Your task to perform on an android device: move an email to a new category in the gmail app Image 0: 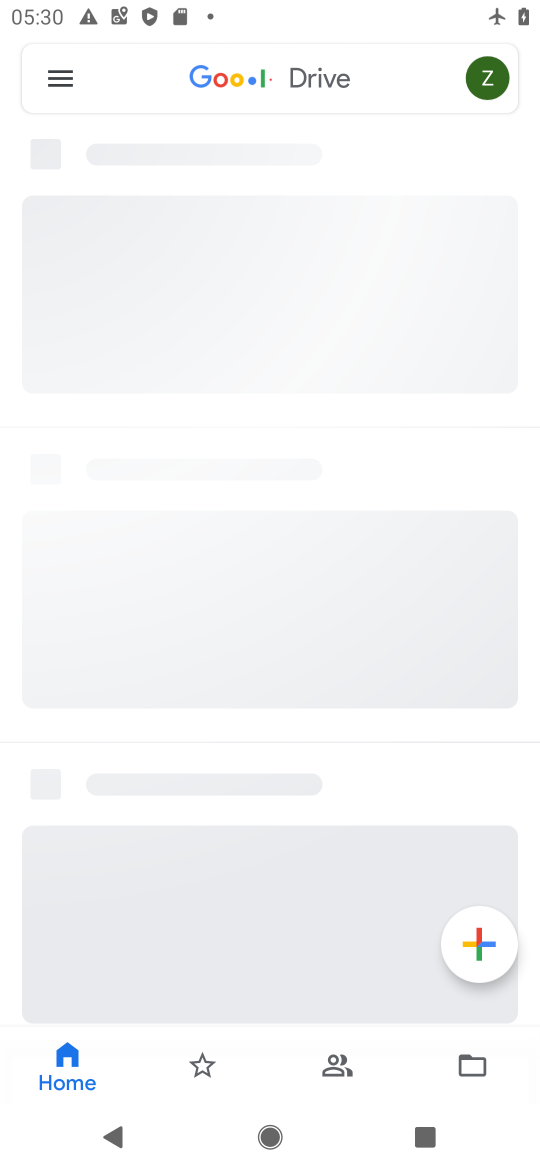
Step 0: press back button
Your task to perform on an android device: move an email to a new category in the gmail app Image 1: 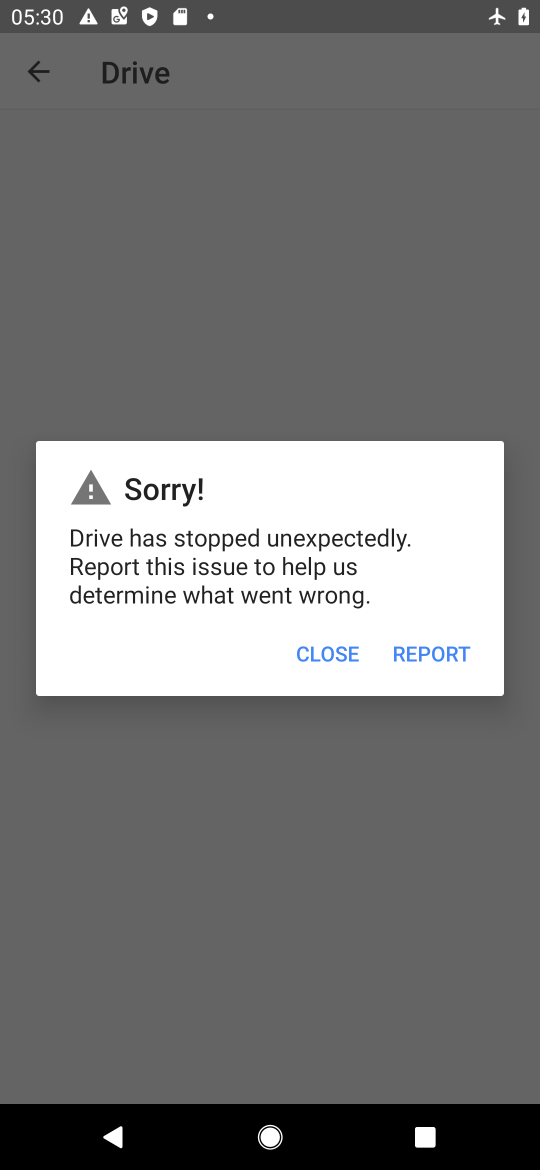
Step 1: press home button
Your task to perform on an android device: move an email to a new category in the gmail app Image 2: 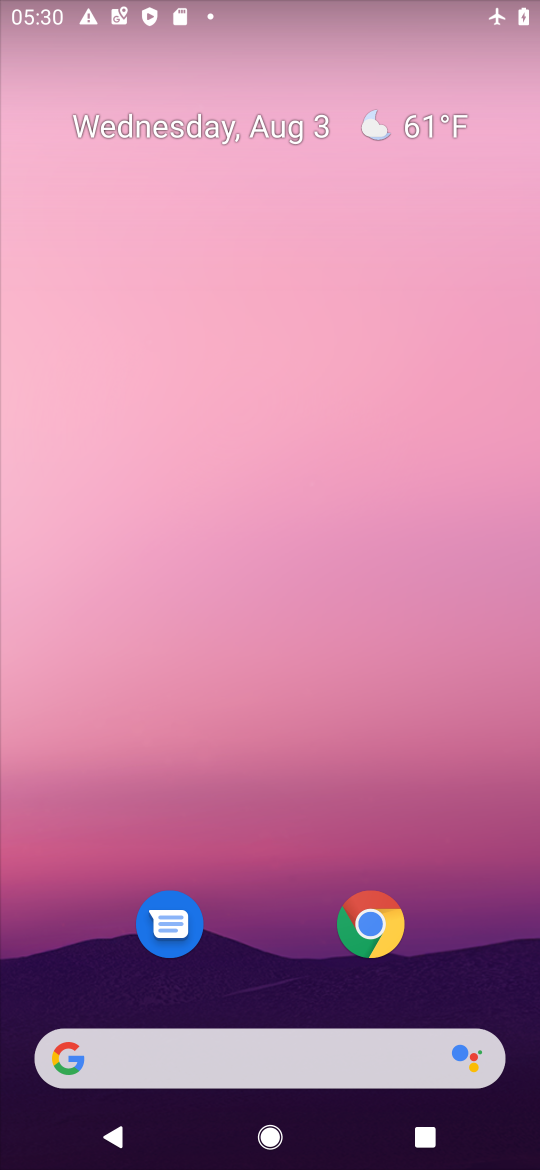
Step 2: drag from (268, 924) to (273, 359)
Your task to perform on an android device: move an email to a new category in the gmail app Image 3: 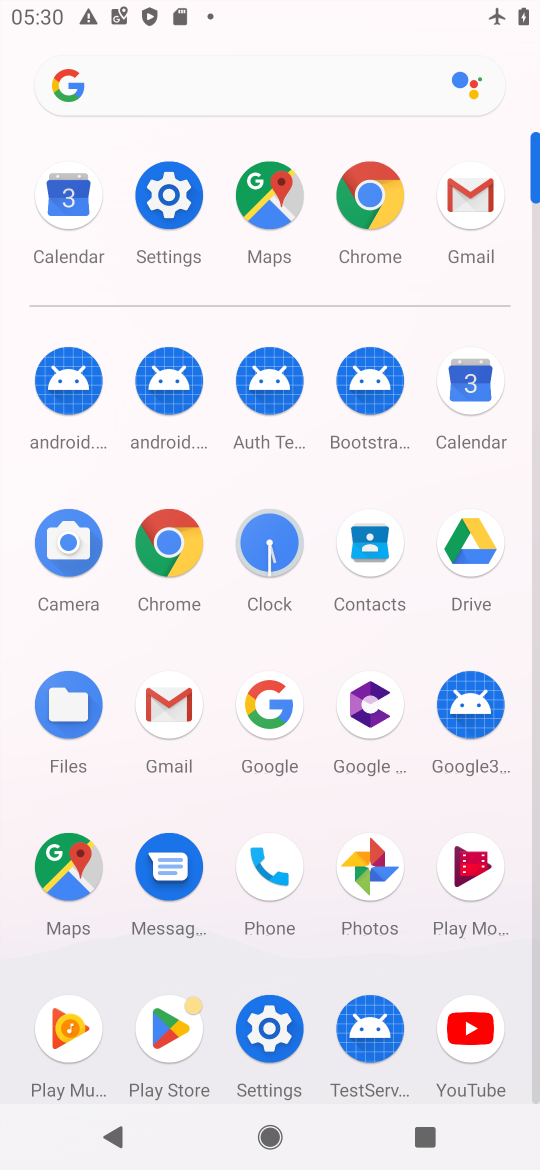
Step 3: click (482, 222)
Your task to perform on an android device: move an email to a new category in the gmail app Image 4: 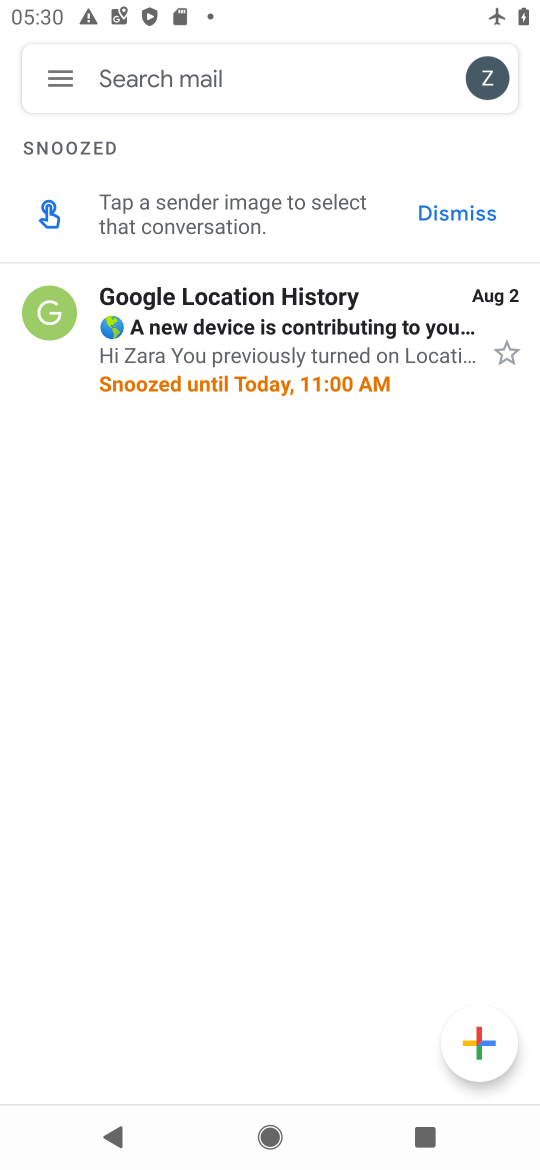
Step 4: click (279, 344)
Your task to perform on an android device: move an email to a new category in the gmail app Image 5: 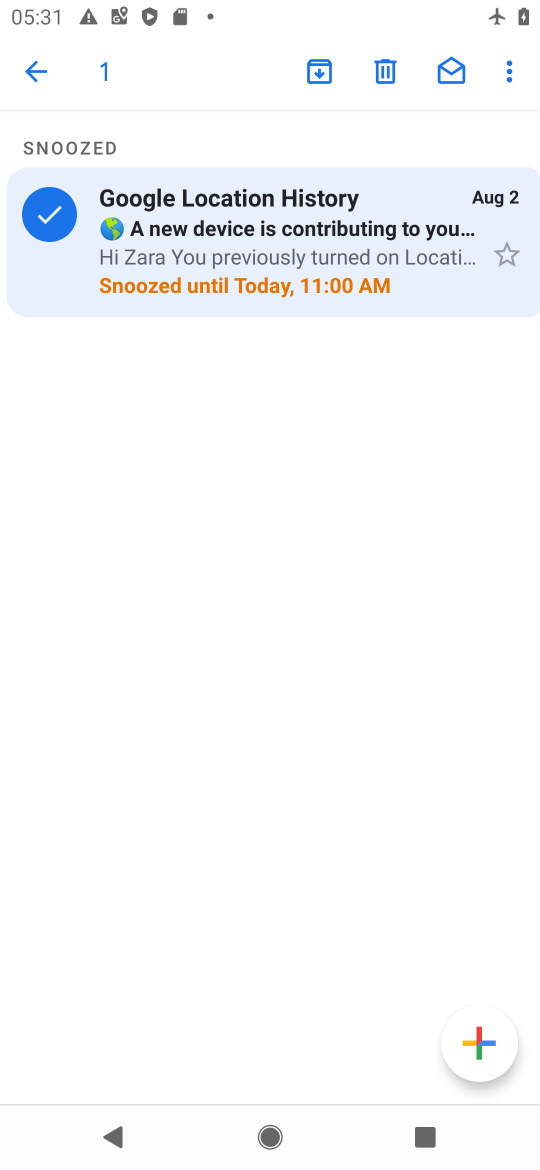
Step 5: click (497, 78)
Your task to perform on an android device: move an email to a new category in the gmail app Image 6: 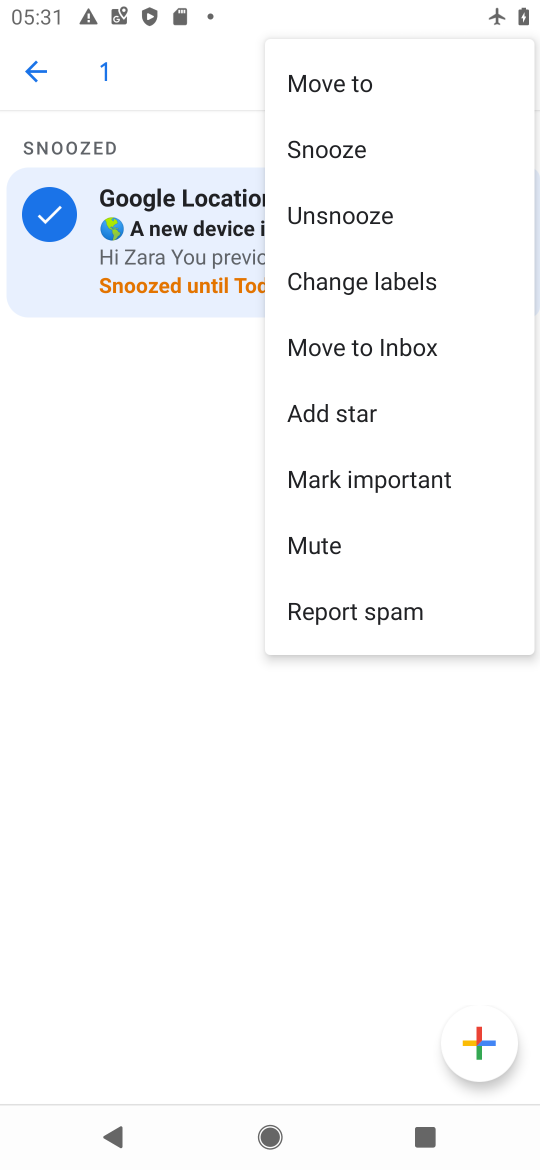
Step 6: click (390, 85)
Your task to perform on an android device: move an email to a new category in the gmail app Image 7: 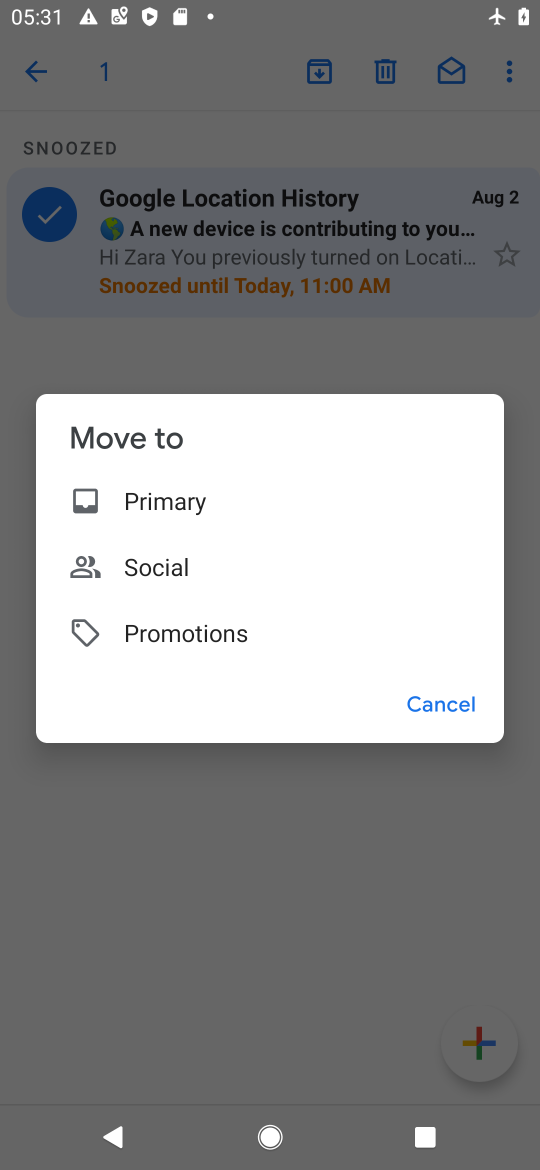
Step 7: click (141, 589)
Your task to perform on an android device: move an email to a new category in the gmail app Image 8: 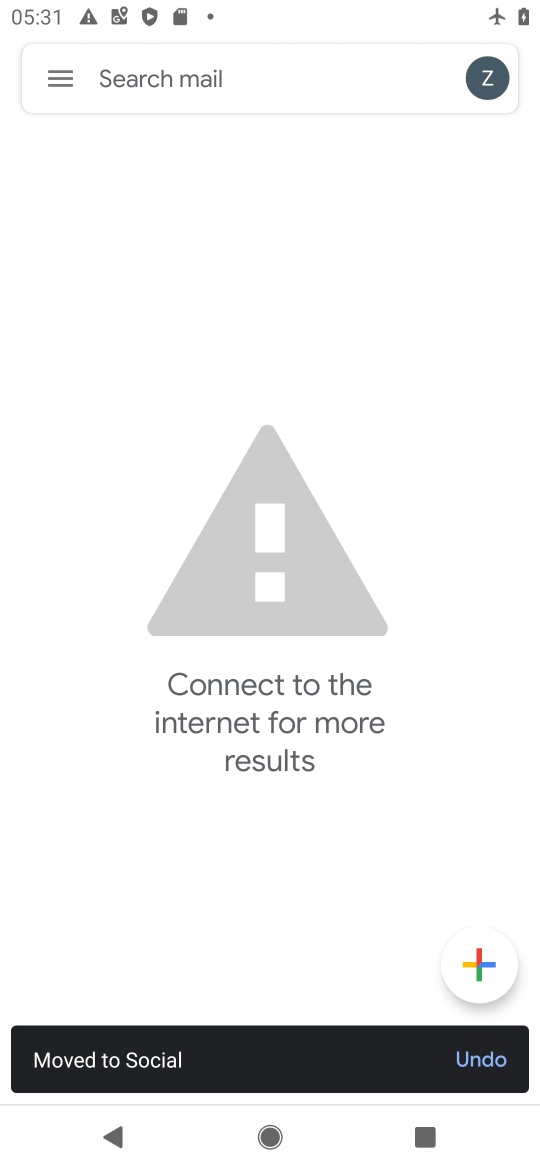
Step 8: task complete